Your task to perform on an android device: Open location settings Image 0: 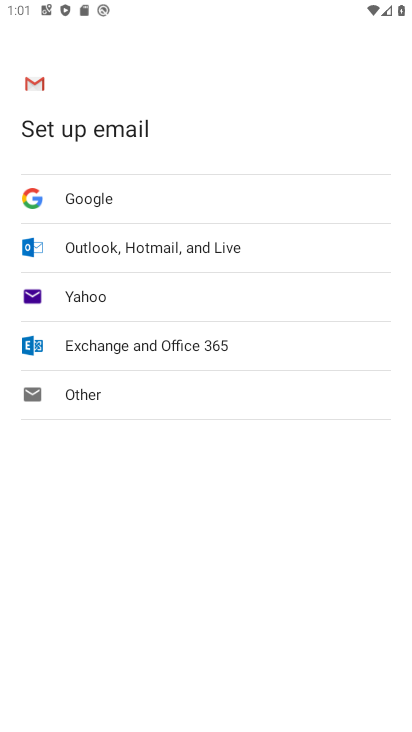
Step 0: press home button
Your task to perform on an android device: Open location settings Image 1: 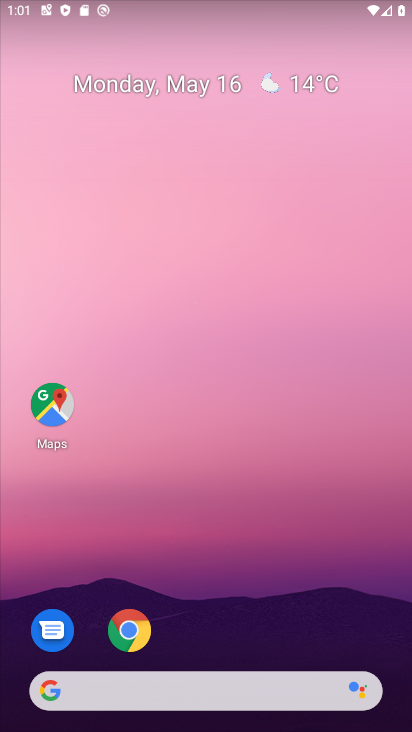
Step 1: drag from (314, 570) to (275, 4)
Your task to perform on an android device: Open location settings Image 2: 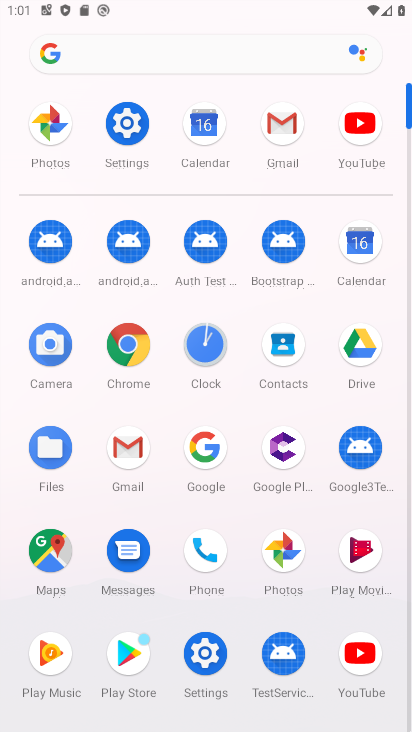
Step 2: click (205, 662)
Your task to perform on an android device: Open location settings Image 3: 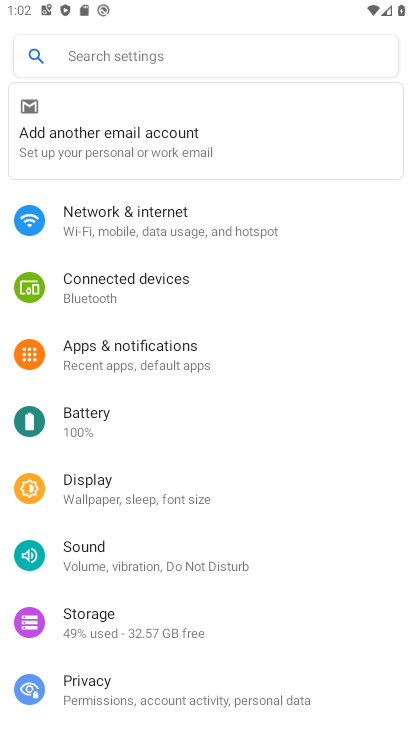
Step 3: drag from (138, 666) to (188, 280)
Your task to perform on an android device: Open location settings Image 4: 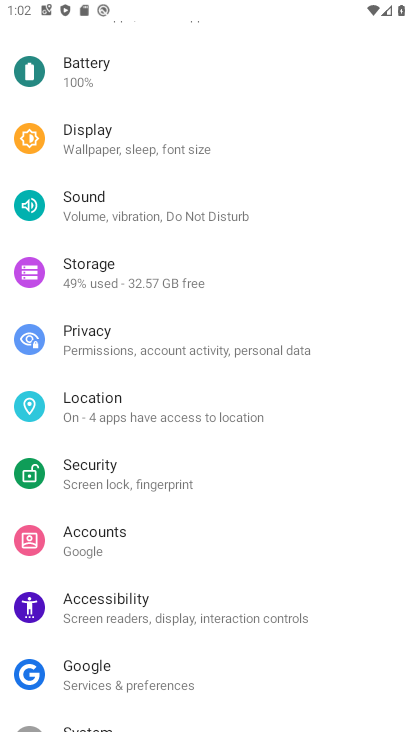
Step 4: click (88, 396)
Your task to perform on an android device: Open location settings Image 5: 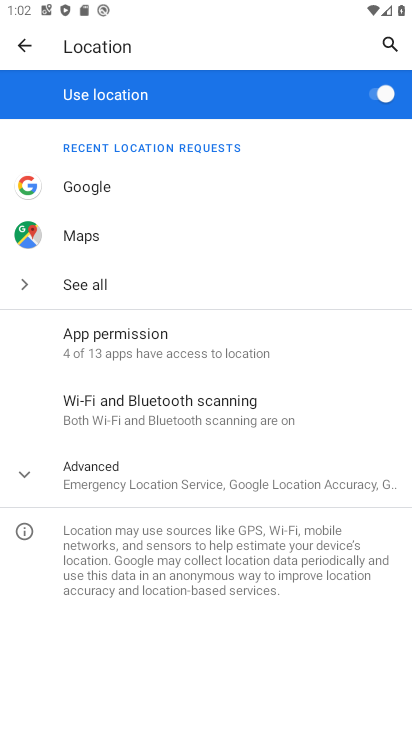
Step 5: task complete